Your task to perform on an android device: Is it going to rain tomorrow? Image 0: 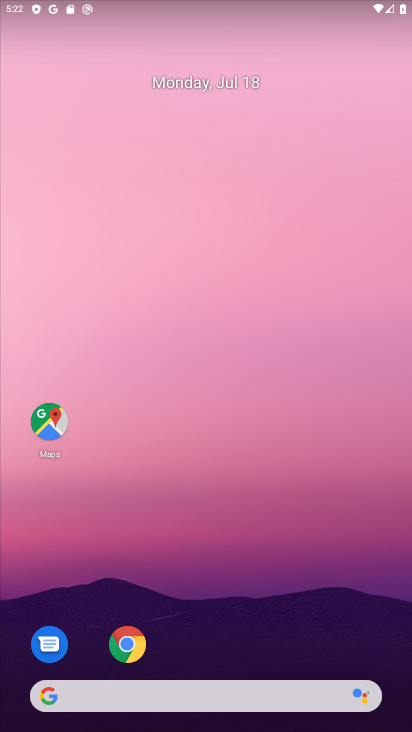
Step 0: click (44, 689)
Your task to perform on an android device: Is it going to rain tomorrow? Image 1: 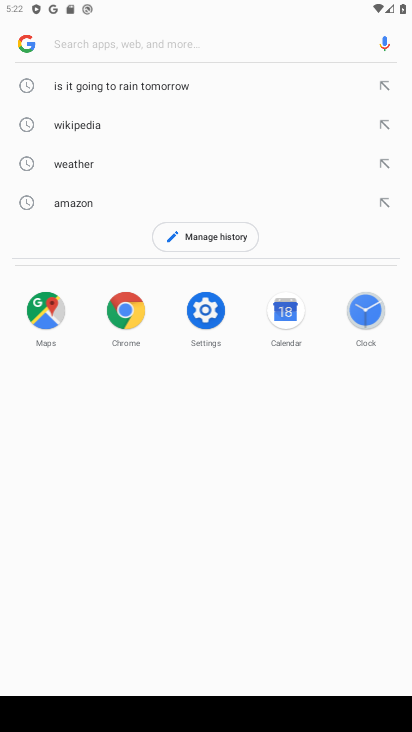
Step 1: click (161, 88)
Your task to perform on an android device: Is it going to rain tomorrow? Image 2: 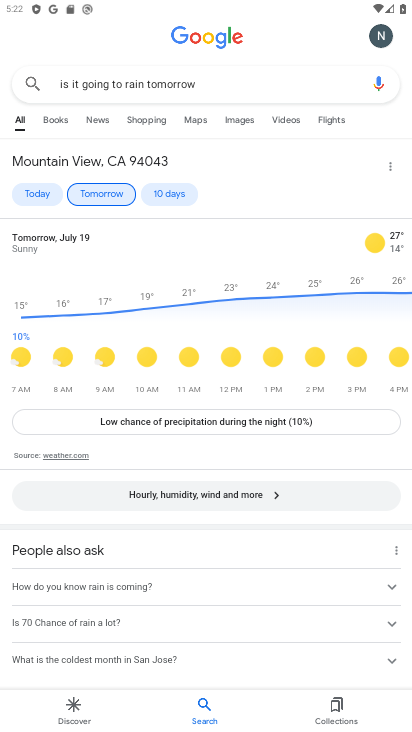
Step 2: task complete